Your task to perform on an android device: check google app version Image 0: 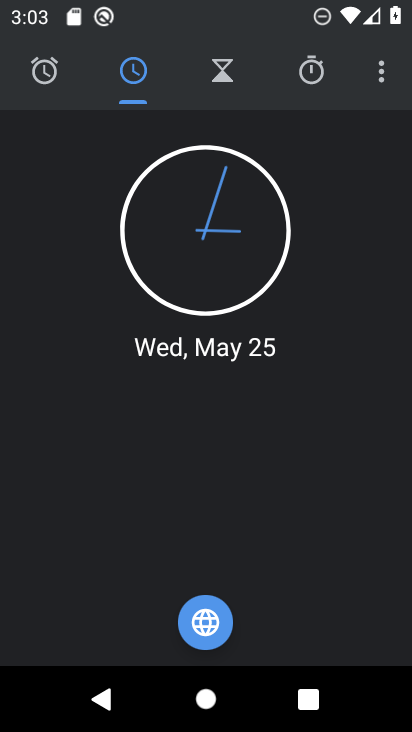
Step 0: press home button
Your task to perform on an android device: check google app version Image 1: 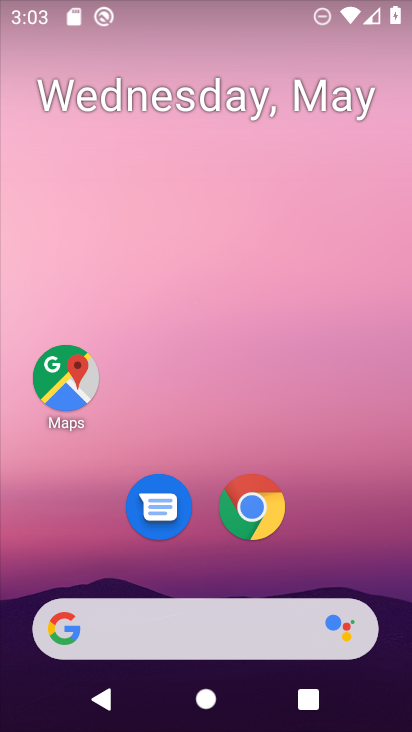
Step 1: drag from (223, 590) to (254, 151)
Your task to perform on an android device: check google app version Image 2: 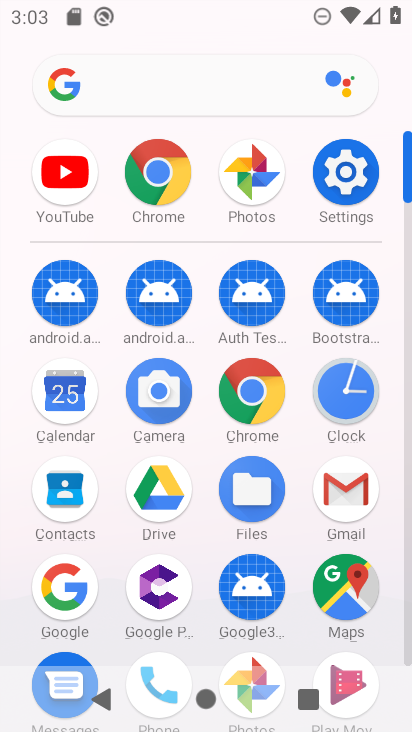
Step 2: click (67, 73)
Your task to perform on an android device: check google app version Image 3: 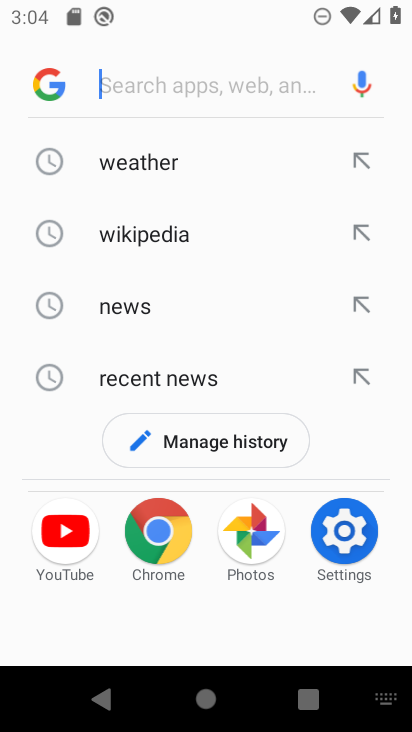
Step 3: click (68, 92)
Your task to perform on an android device: check google app version Image 4: 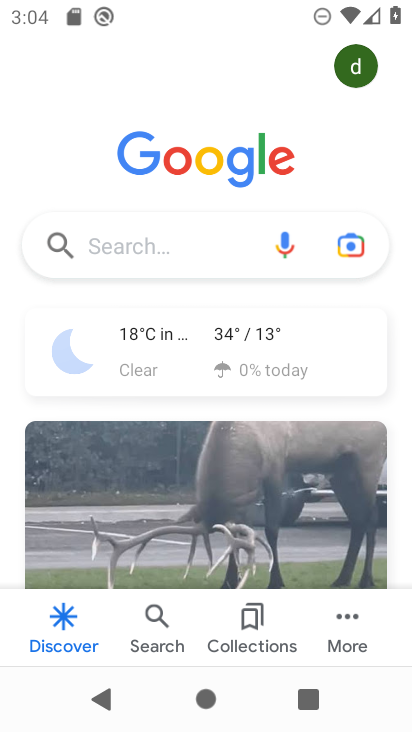
Step 4: click (346, 620)
Your task to perform on an android device: check google app version Image 5: 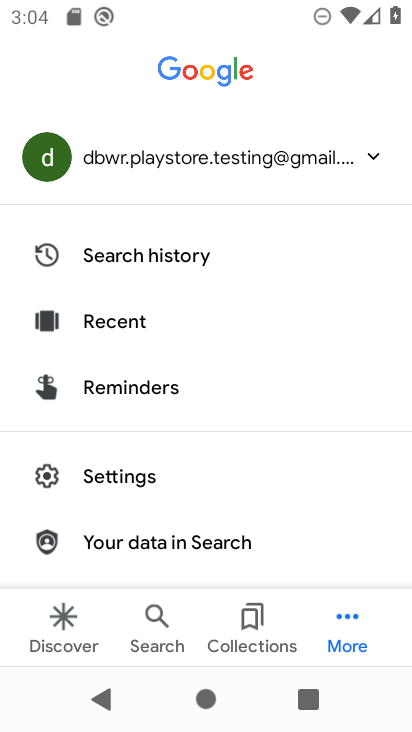
Step 5: click (128, 483)
Your task to perform on an android device: check google app version Image 6: 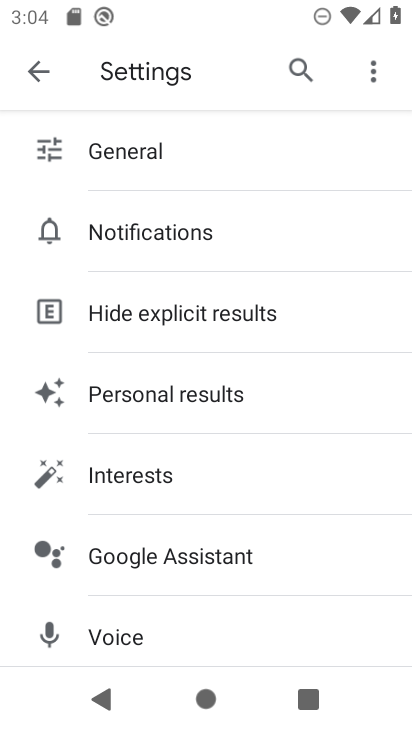
Step 6: drag from (174, 539) to (199, 308)
Your task to perform on an android device: check google app version Image 7: 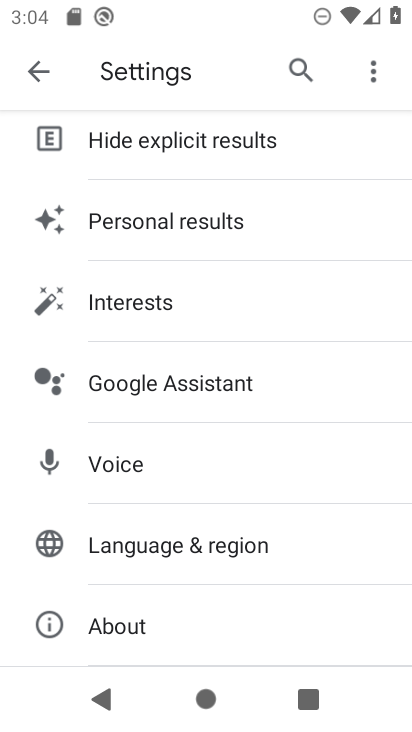
Step 7: drag from (123, 607) to (142, 467)
Your task to perform on an android device: check google app version Image 8: 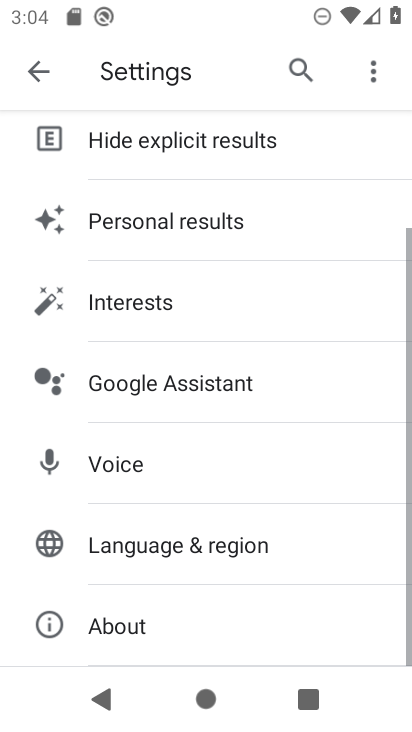
Step 8: click (122, 616)
Your task to perform on an android device: check google app version Image 9: 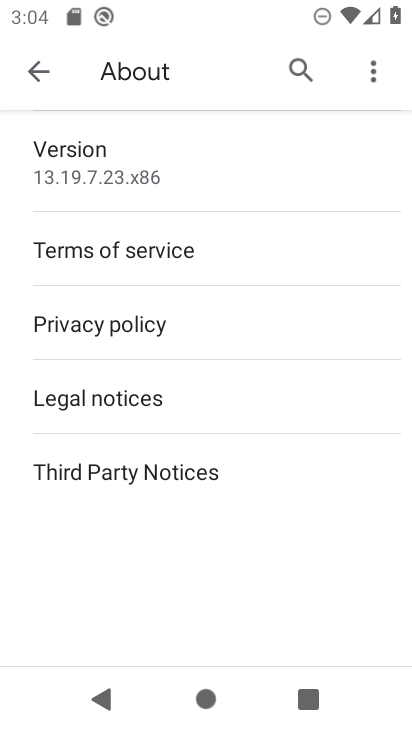
Step 9: task complete